Your task to perform on an android device: Go to location settings Image 0: 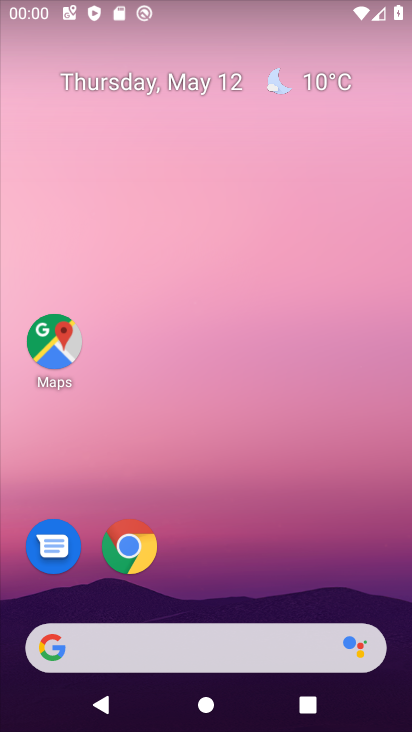
Step 0: drag from (235, 579) to (249, 232)
Your task to perform on an android device: Go to location settings Image 1: 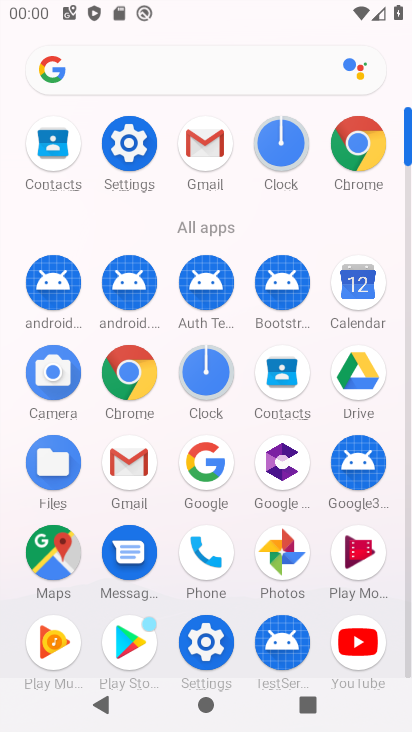
Step 1: click (128, 147)
Your task to perform on an android device: Go to location settings Image 2: 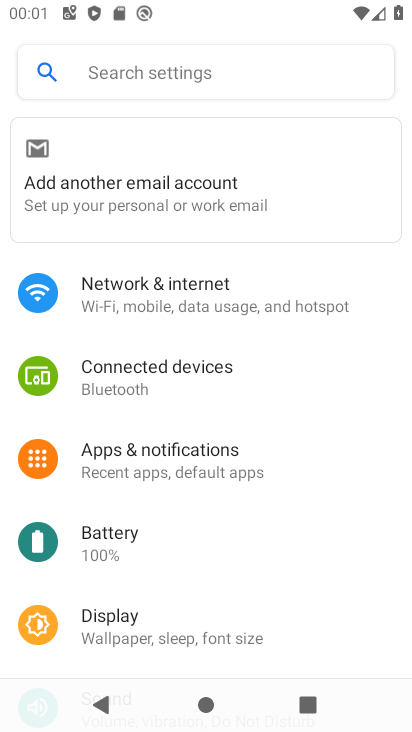
Step 2: drag from (162, 577) to (219, 300)
Your task to perform on an android device: Go to location settings Image 3: 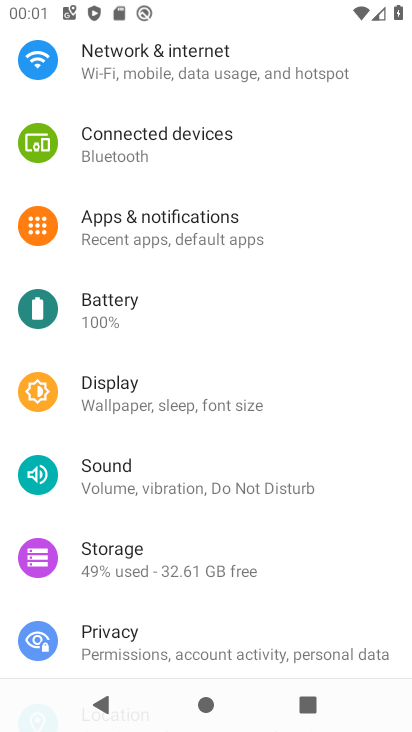
Step 3: drag from (150, 601) to (196, 385)
Your task to perform on an android device: Go to location settings Image 4: 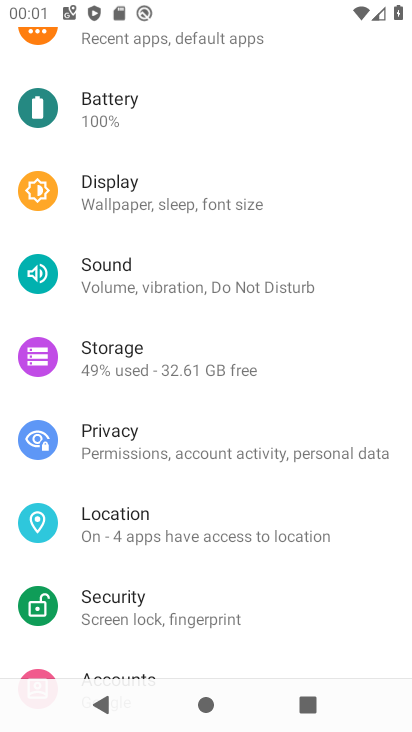
Step 4: click (154, 519)
Your task to perform on an android device: Go to location settings Image 5: 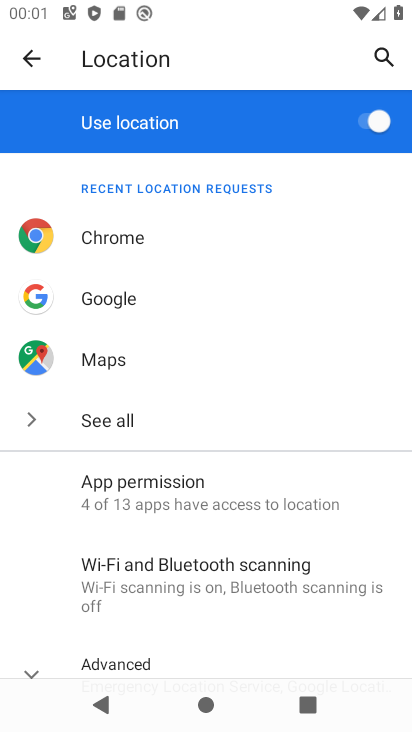
Step 5: task complete